Your task to perform on an android device: Open Wikipedia Image 0: 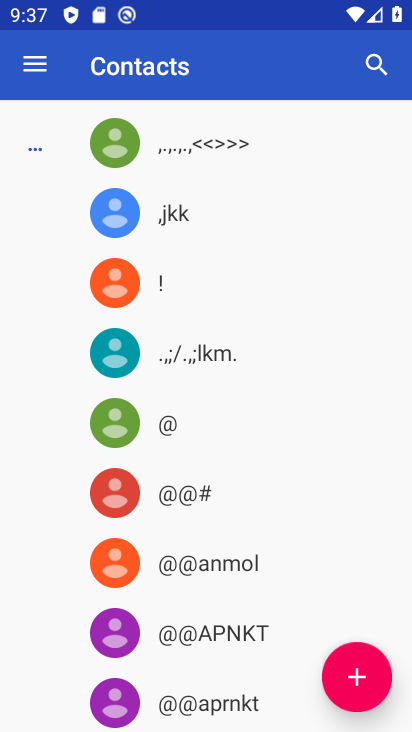
Step 0: press home button
Your task to perform on an android device: Open Wikipedia Image 1: 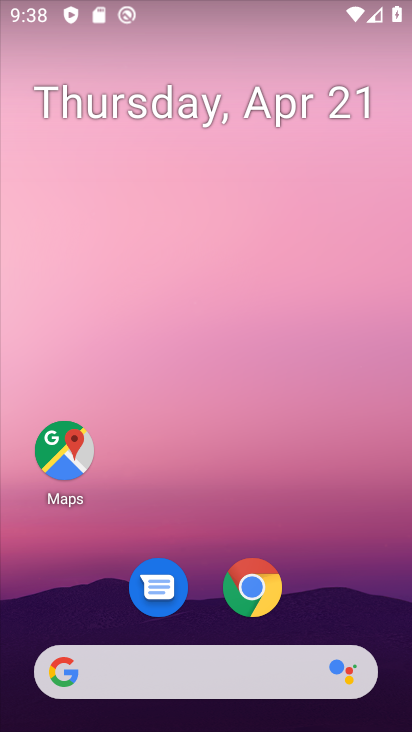
Step 1: drag from (347, 410) to (350, 104)
Your task to perform on an android device: Open Wikipedia Image 2: 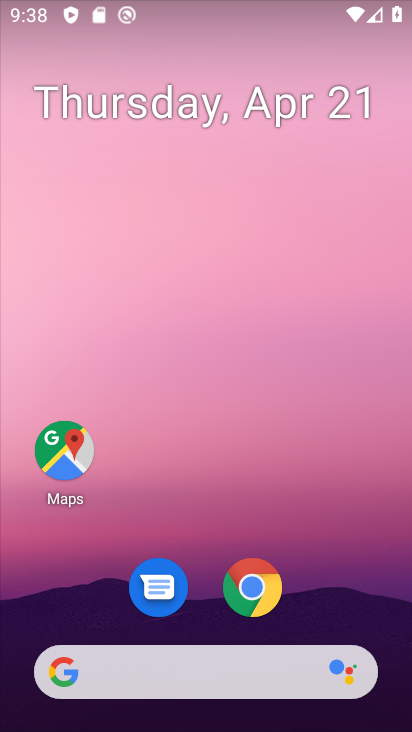
Step 2: drag from (331, 551) to (332, 95)
Your task to perform on an android device: Open Wikipedia Image 3: 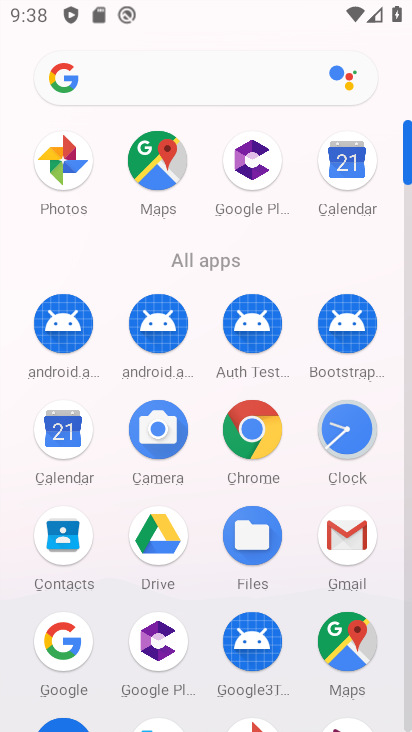
Step 3: click (259, 431)
Your task to perform on an android device: Open Wikipedia Image 4: 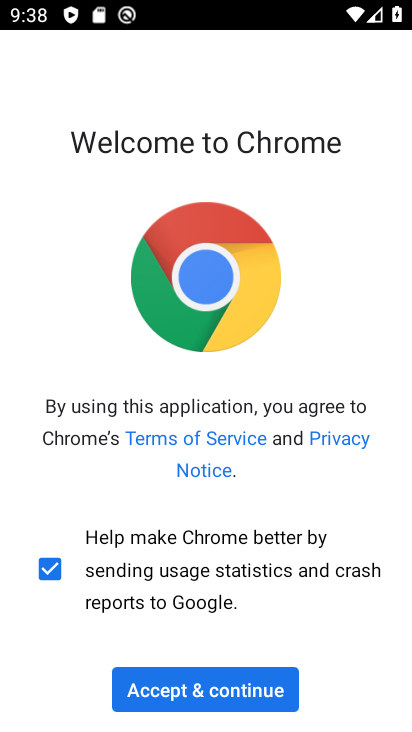
Step 4: click (250, 683)
Your task to perform on an android device: Open Wikipedia Image 5: 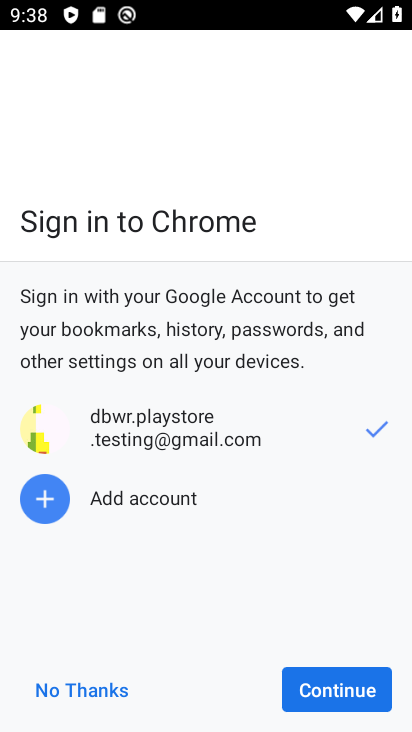
Step 5: click (371, 696)
Your task to perform on an android device: Open Wikipedia Image 6: 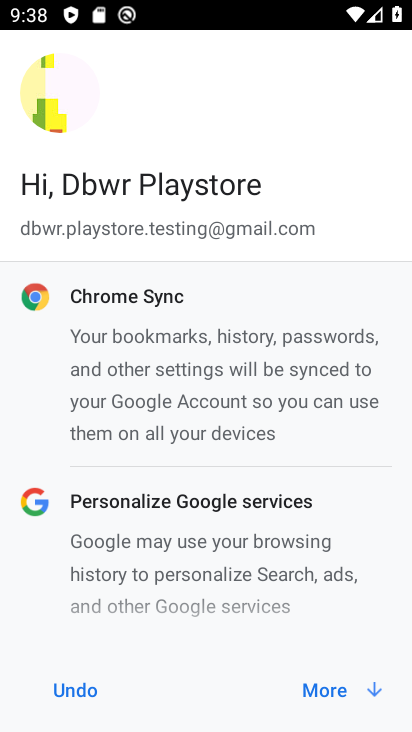
Step 6: click (334, 696)
Your task to perform on an android device: Open Wikipedia Image 7: 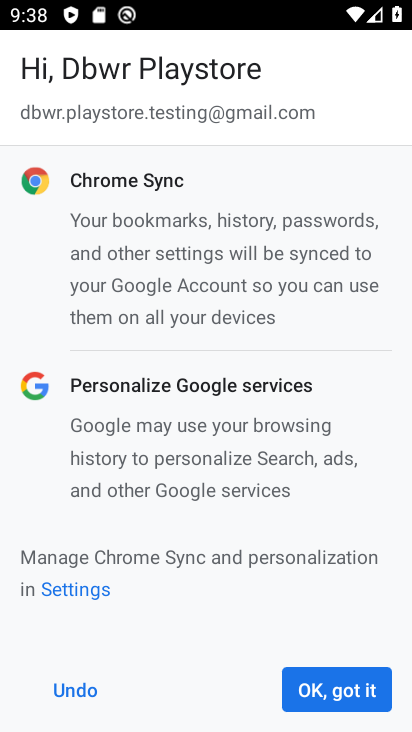
Step 7: click (344, 682)
Your task to perform on an android device: Open Wikipedia Image 8: 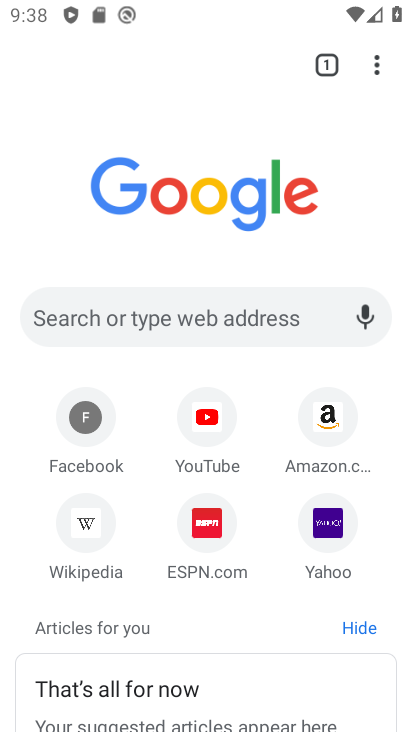
Step 8: click (79, 532)
Your task to perform on an android device: Open Wikipedia Image 9: 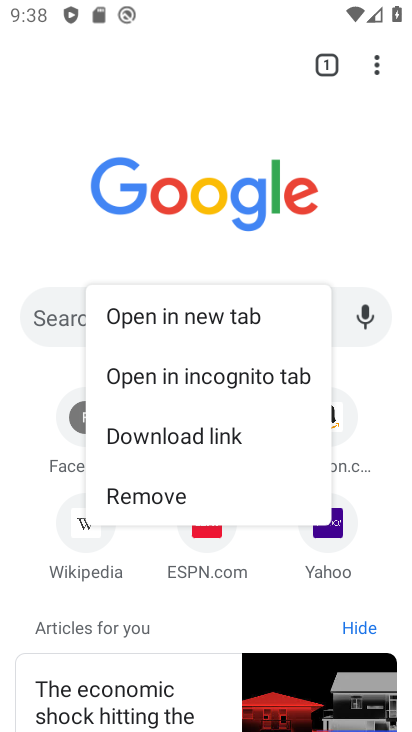
Step 9: click (79, 532)
Your task to perform on an android device: Open Wikipedia Image 10: 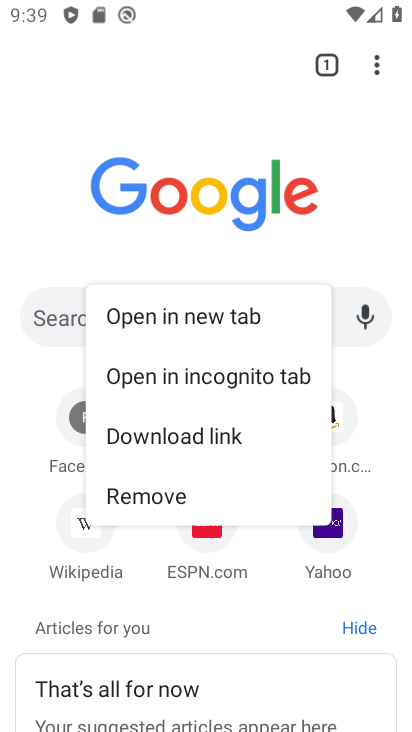
Step 10: click (77, 535)
Your task to perform on an android device: Open Wikipedia Image 11: 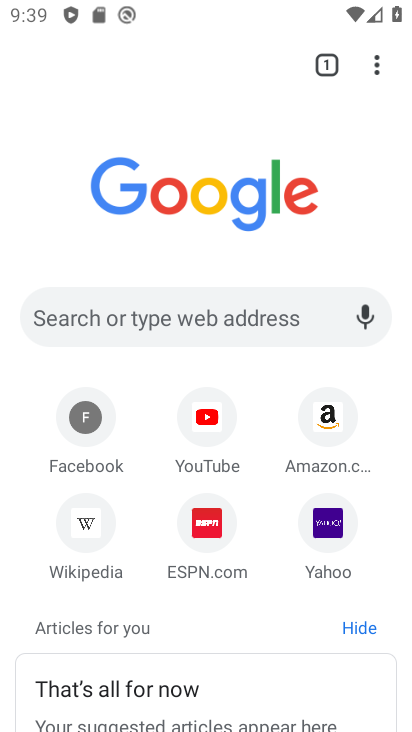
Step 11: click (97, 540)
Your task to perform on an android device: Open Wikipedia Image 12: 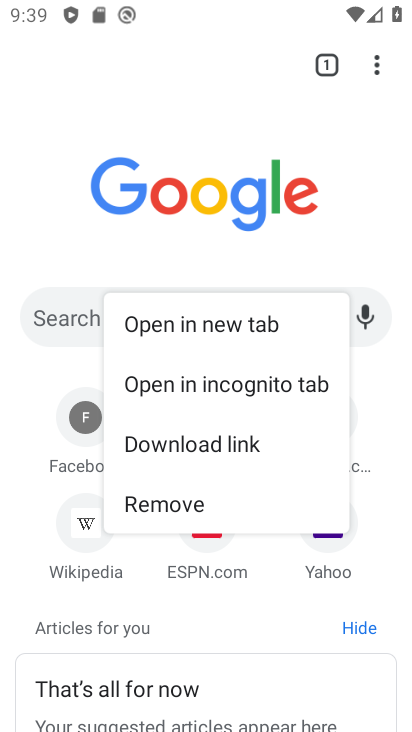
Step 12: click (98, 539)
Your task to perform on an android device: Open Wikipedia Image 13: 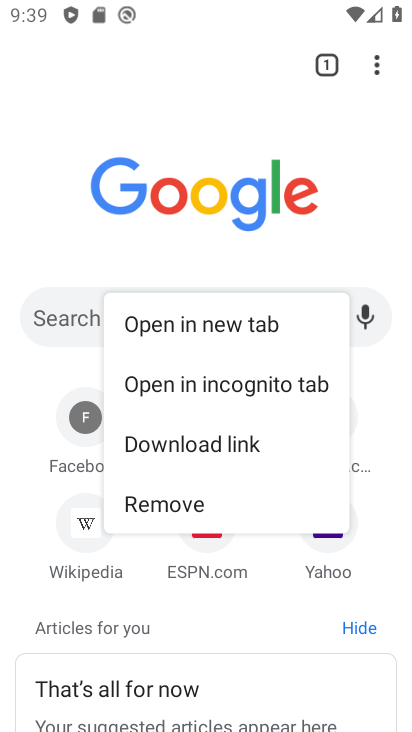
Step 13: click (85, 556)
Your task to perform on an android device: Open Wikipedia Image 14: 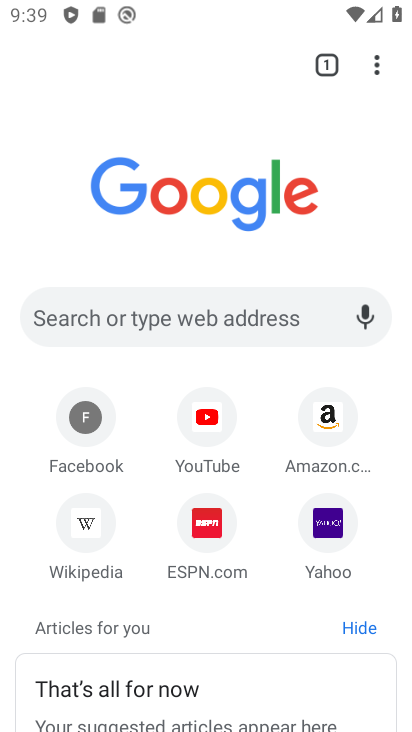
Step 14: click (244, 321)
Your task to perform on an android device: Open Wikipedia Image 15: 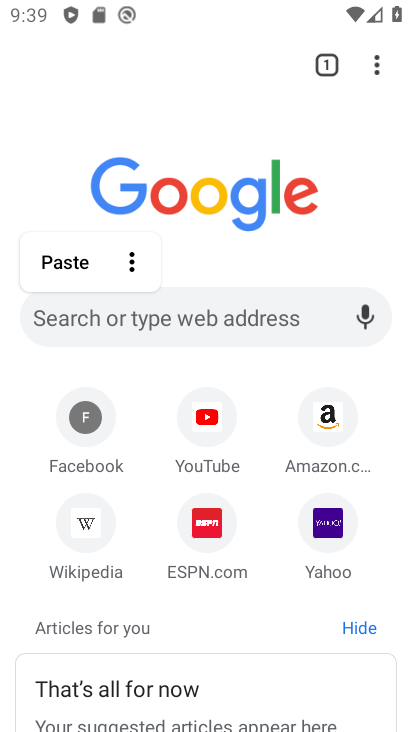
Step 15: click (187, 314)
Your task to perform on an android device: Open Wikipedia Image 16: 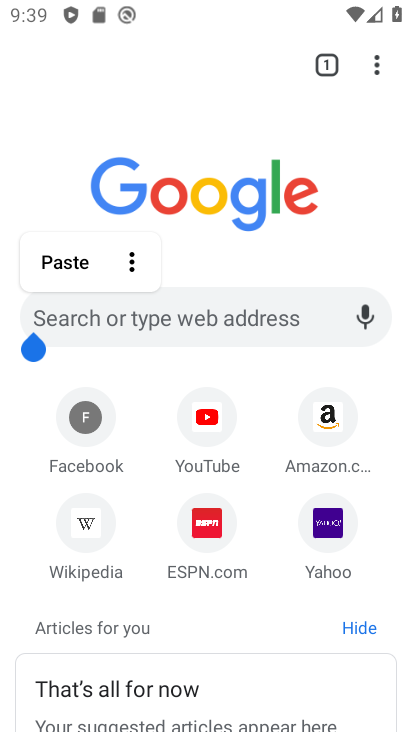
Step 16: click (185, 321)
Your task to perform on an android device: Open Wikipedia Image 17: 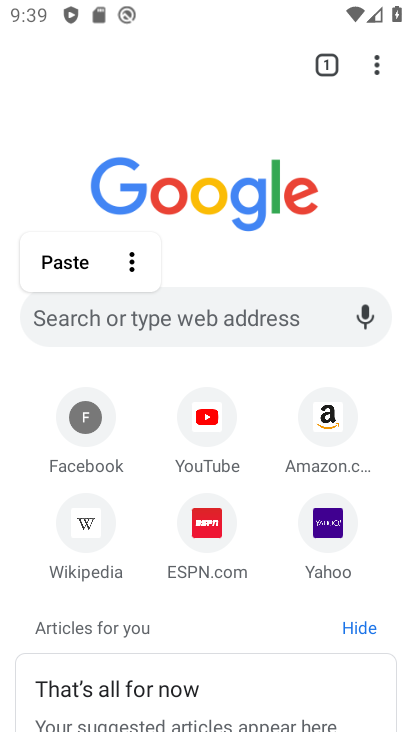
Step 17: type "wikipedia"
Your task to perform on an android device: Open Wikipedia Image 18: 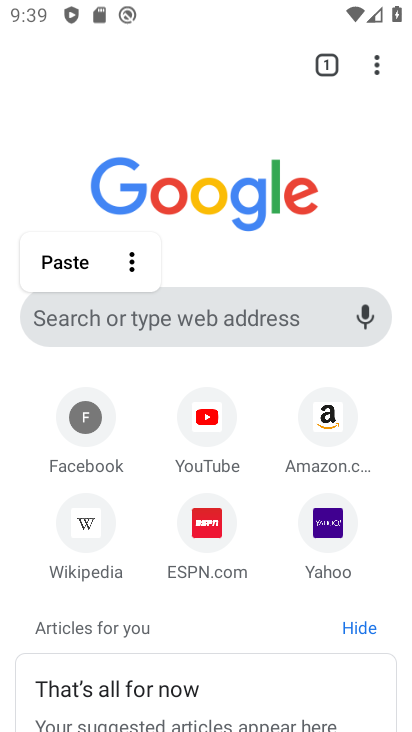
Step 18: task complete